Your task to perform on an android device: move a message to another label in the gmail app Image 0: 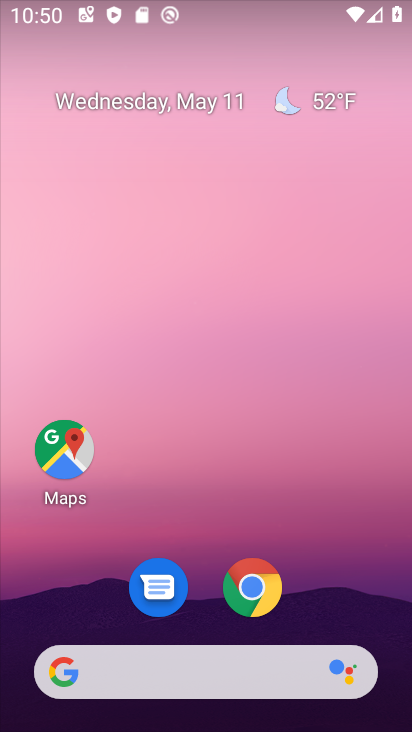
Step 0: drag from (232, 696) to (332, 208)
Your task to perform on an android device: move a message to another label in the gmail app Image 1: 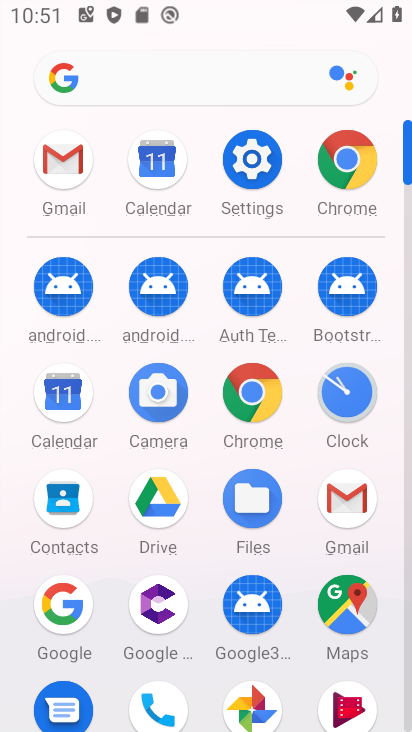
Step 1: click (69, 178)
Your task to perform on an android device: move a message to another label in the gmail app Image 2: 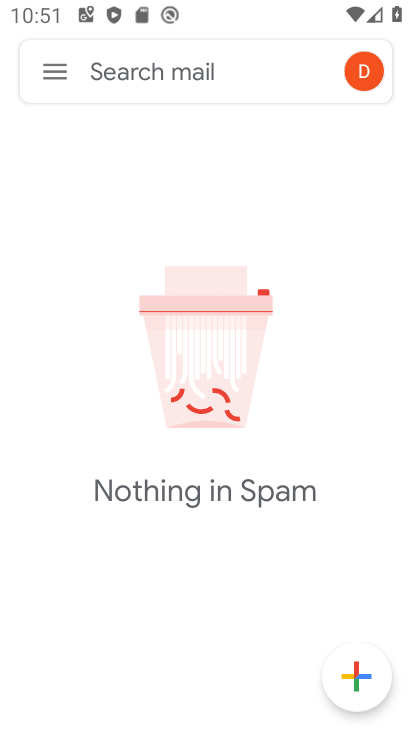
Step 2: click (35, 79)
Your task to perform on an android device: move a message to another label in the gmail app Image 3: 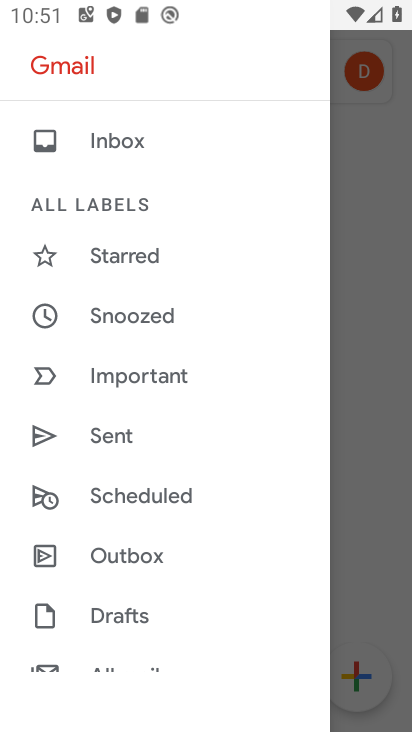
Step 3: drag from (145, 624) to (273, 429)
Your task to perform on an android device: move a message to another label in the gmail app Image 4: 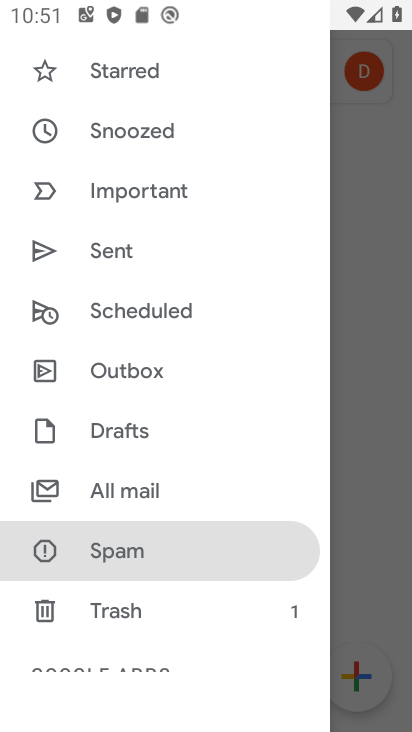
Step 4: drag from (148, 639) to (251, 492)
Your task to perform on an android device: move a message to another label in the gmail app Image 5: 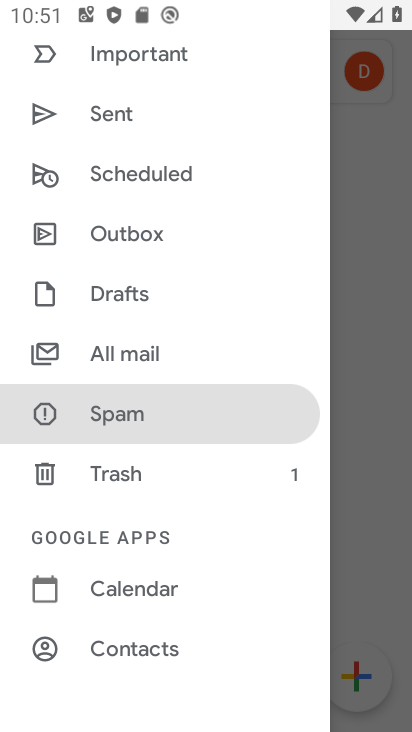
Step 5: drag from (135, 647) to (191, 556)
Your task to perform on an android device: move a message to another label in the gmail app Image 6: 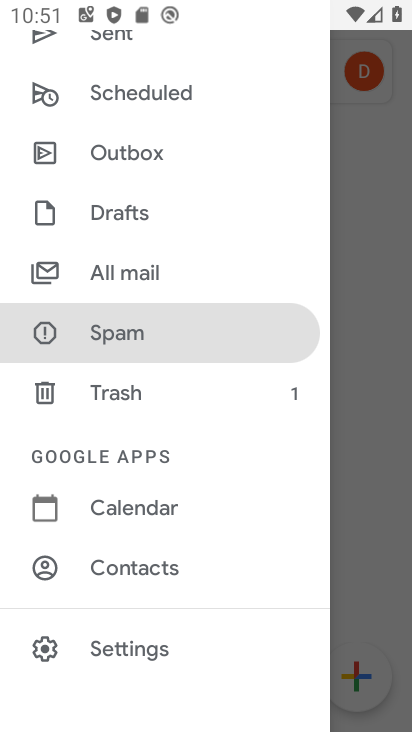
Step 6: click (149, 641)
Your task to perform on an android device: move a message to another label in the gmail app Image 7: 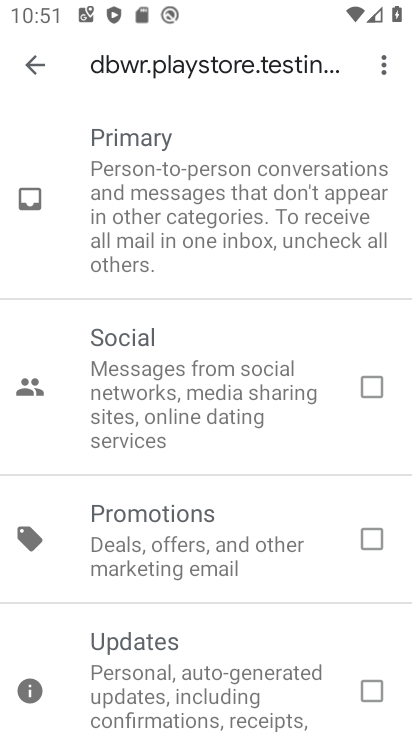
Step 7: click (22, 70)
Your task to perform on an android device: move a message to another label in the gmail app Image 8: 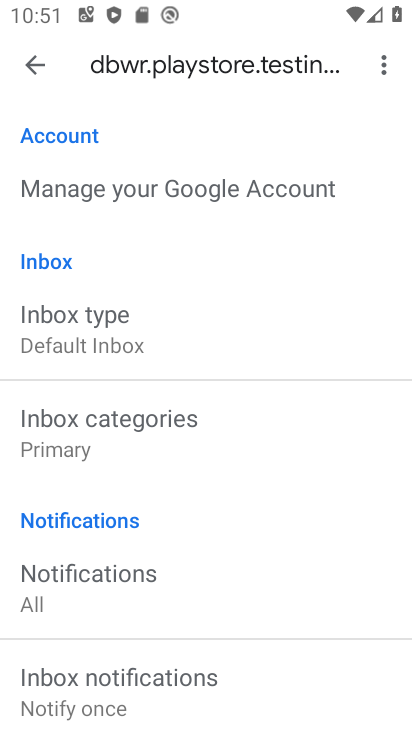
Step 8: drag from (127, 593) to (240, 435)
Your task to perform on an android device: move a message to another label in the gmail app Image 9: 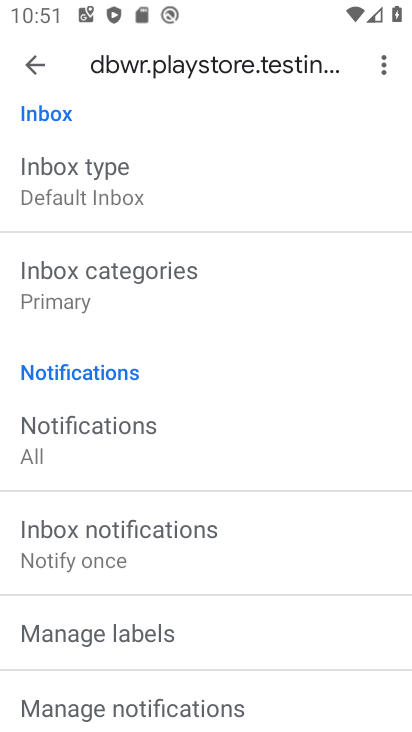
Step 9: click (144, 635)
Your task to perform on an android device: move a message to another label in the gmail app Image 10: 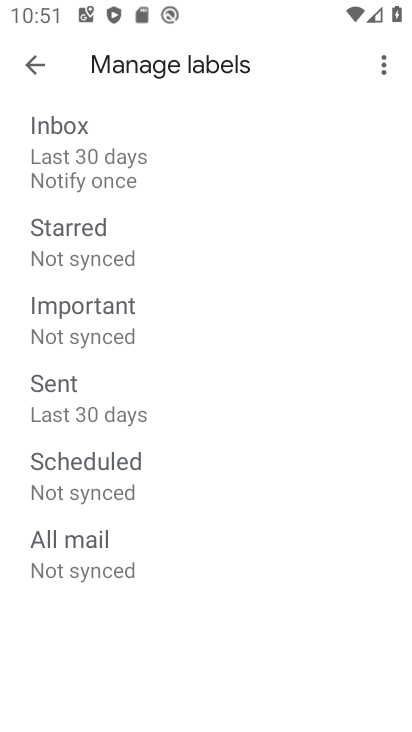
Step 10: click (206, 213)
Your task to perform on an android device: move a message to another label in the gmail app Image 11: 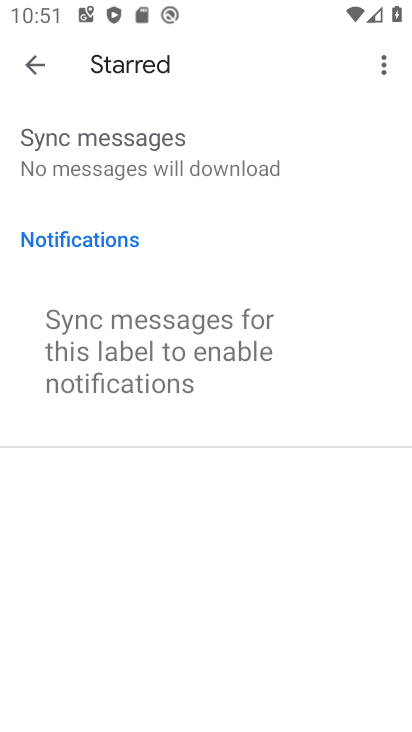
Step 11: task complete